Your task to perform on an android device: Open Wikipedia Image 0: 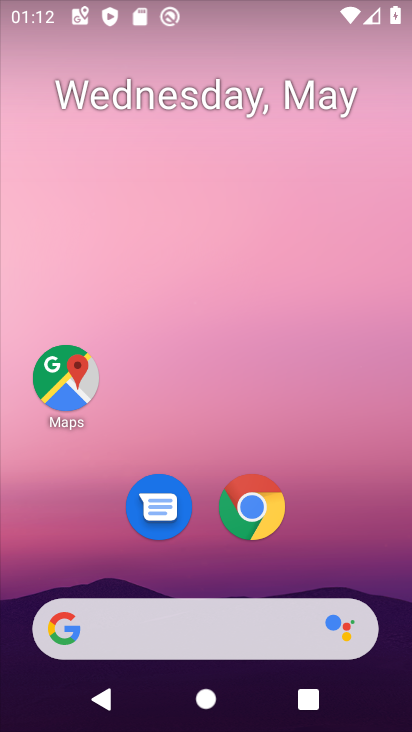
Step 0: drag from (307, 532) to (284, 222)
Your task to perform on an android device: Open Wikipedia Image 1: 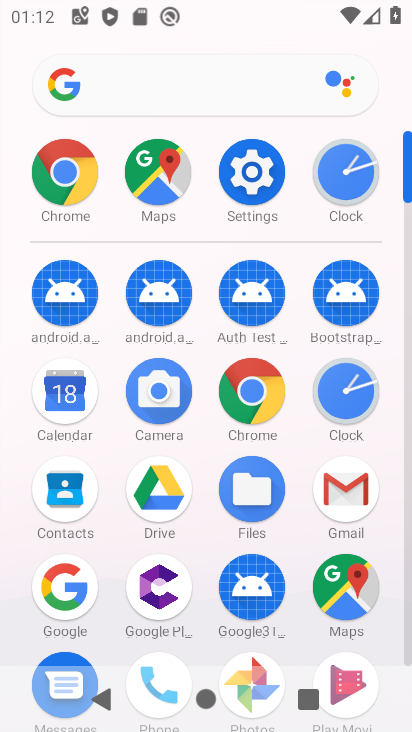
Step 1: click (269, 384)
Your task to perform on an android device: Open Wikipedia Image 2: 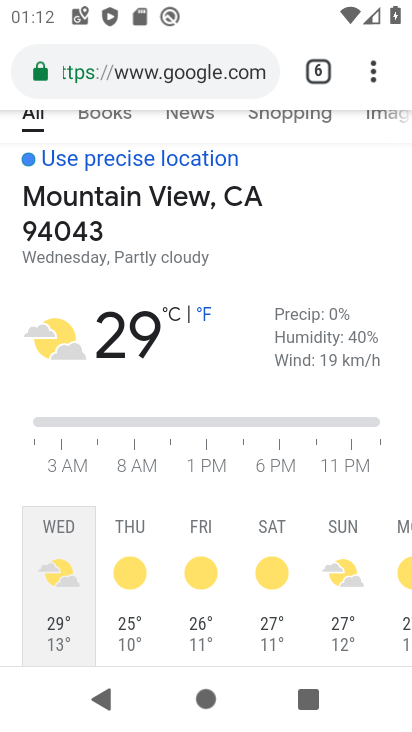
Step 2: click (363, 71)
Your task to perform on an android device: Open Wikipedia Image 3: 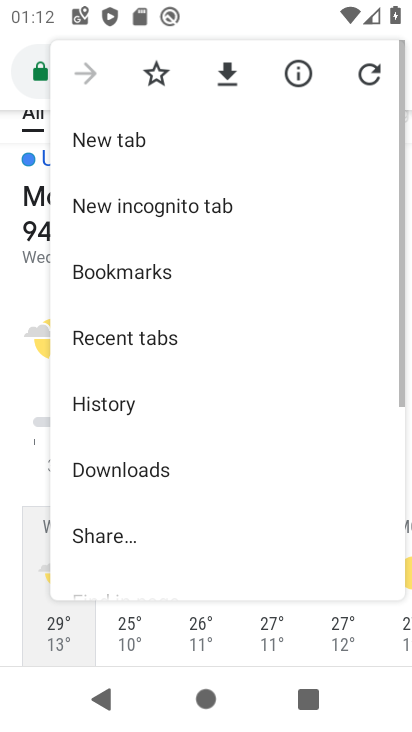
Step 3: click (148, 145)
Your task to perform on an android device: Open Wikipedia Image 4: 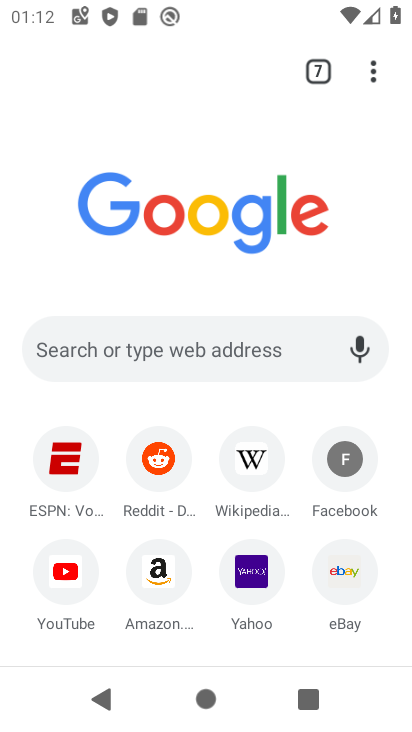
Step 4: click (227, 455)
Your task to perform on an android device: Open Wikipedia Image 5: 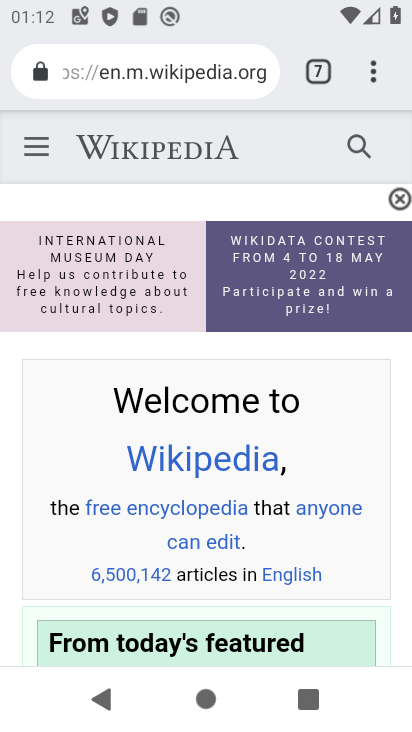
Step 5: task complete